Your task to perform on an android device: Go to CNN.com Image 0: 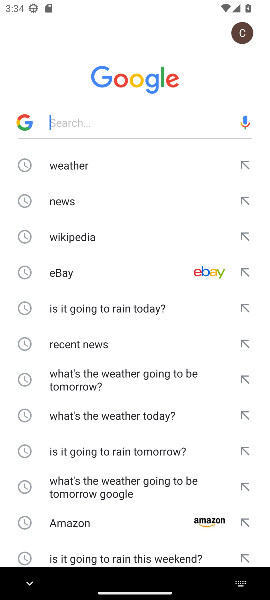
Step 0: press back button
Your task to perform on an android device: Go to CNN.com Image 1: 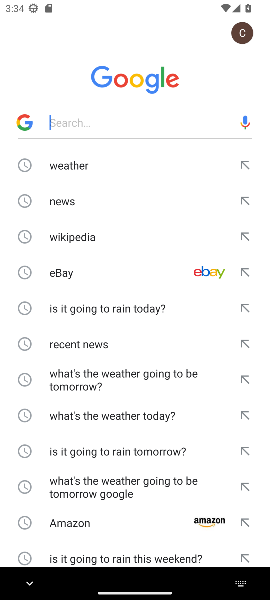
Step 1: press back button
Your task to perform on an android device: Go to CNN.com Image 2: 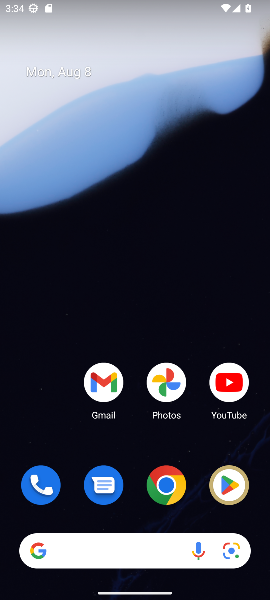
Step 2: press back button
Your task to perform on an android device: Go to CNN.com Image 3: 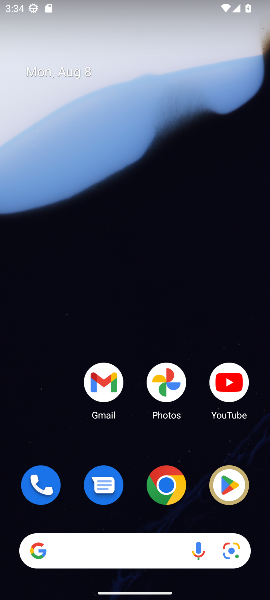
Step 3: press back button
Your task to perform on an android device: Go to CNN.com Image 4: 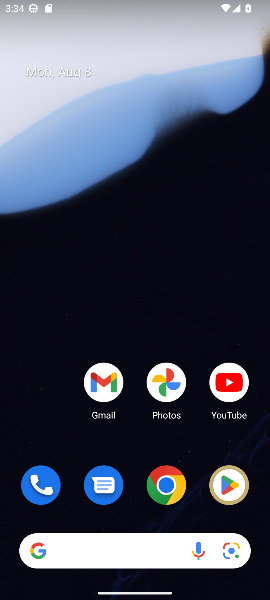
Step 4: drag from (150, 512) to (72, 91)
Your task to perform on an android device: Go to CNN.com Image 5: 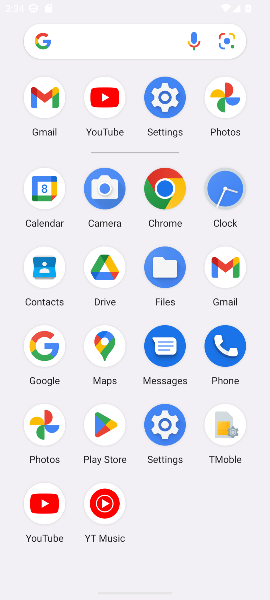
Step 5: drag from (144, 395) to (106, 130)
Your task to perform on an android device: Go to CNN.com Image 6: 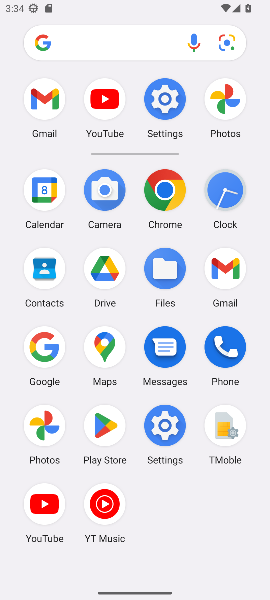
Step 6: click (158, 194)
Your task to perform on an android device: Go to CNN.com Image 7: 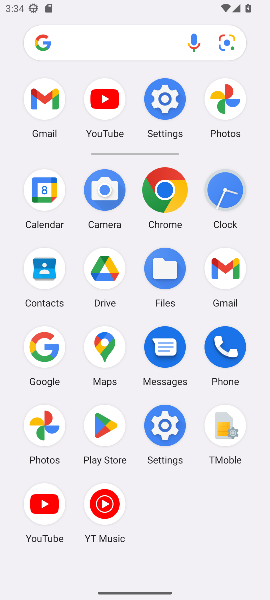
Step 7: click (157, 185)
Your task to perform on an android device: Go to CNN.com Image 8: 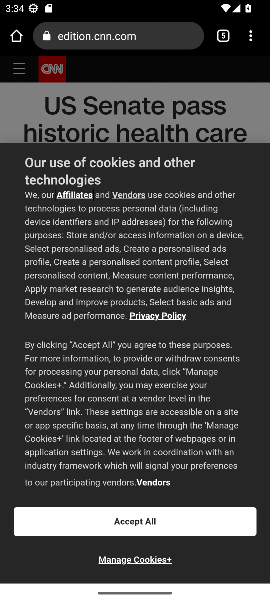
Step 8: click (250, 34)
Your task to perform on an android device: Go to CNN.com Image 9: 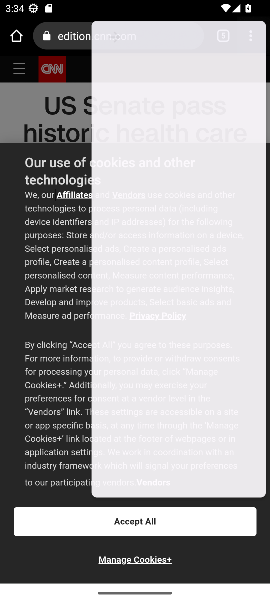
Step 9: click (250, 34)
Your task to perform on an android device: Go to CNN.com Image 10: 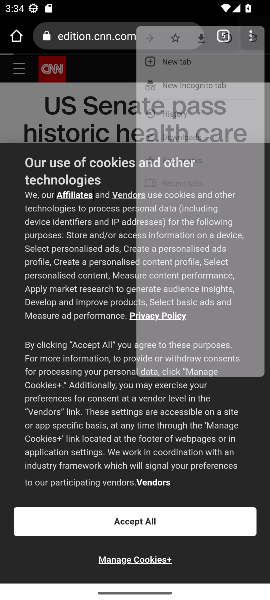
Step 10: click (250, 34)
Your task to perform on an android device: Go to CNN.com Image 11: 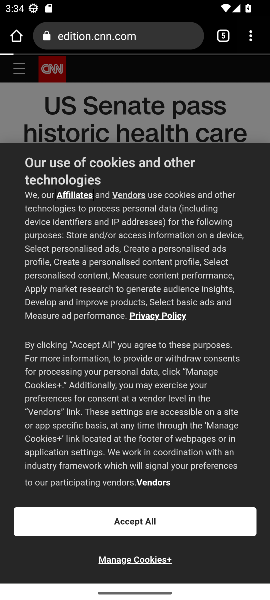
Step 11: click (250, 34)
Your task to perform on an android device: Go to CNN.com Image 12: 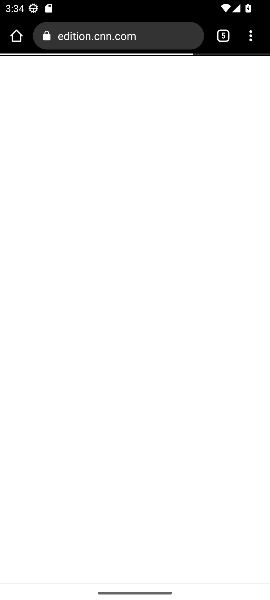
Step 12: click (250, 34)
Your task to perform on an android device: Go to CNN.com Image 13: 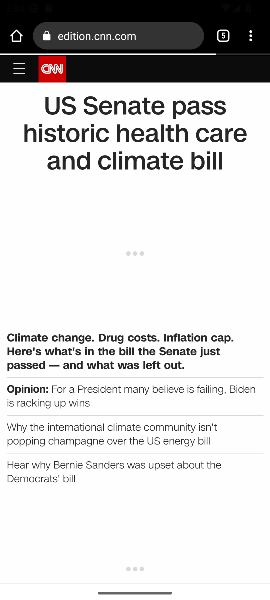
Step 13: click (250, 34)
Your task to perform on an android device: Go to CNN.com Image 14: 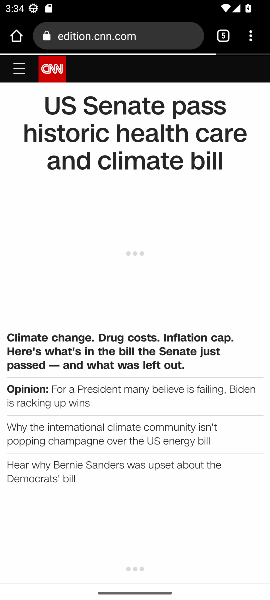
Step 14: drag from (250, 34) to (145, 67)
Your task to perform on an android device: Go to CNN.com Image 15: 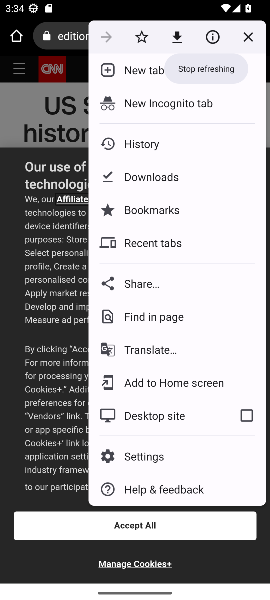
Step 15: click (144, 67)
Your task to perform on an android device: Go to CNN.com Image 16: 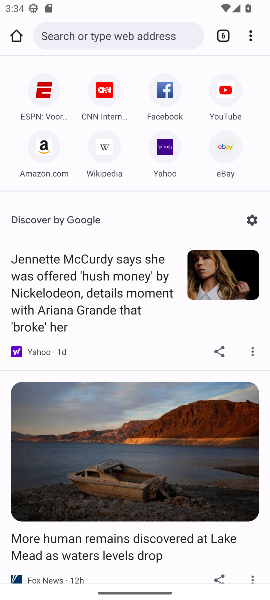
Step 16: click (55, 35)
Your task to perform on an android device: Go to CNN.com Image 17: 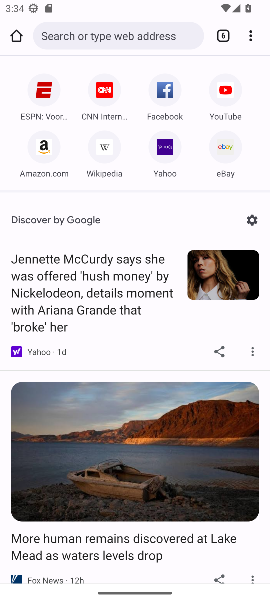
Step 17: click (58, 33)
Your task to perform on an android device: Go to CNN.com Image 18: 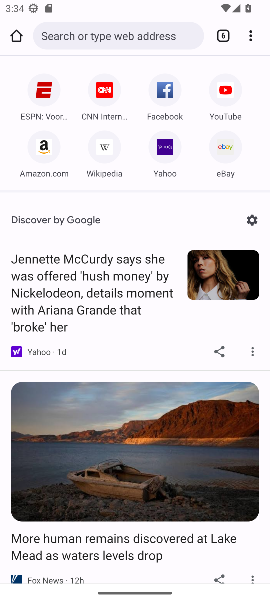
Step 18: click (58, 33)
Your task to perform on an android device: Go to CNN.com Image 19: 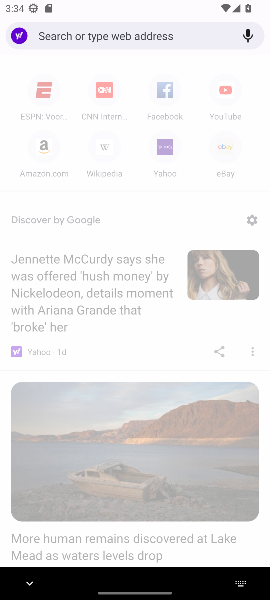
Step 19: click (58, 33)
Your task to perform on an android device: Go to CNN.com Image 20: 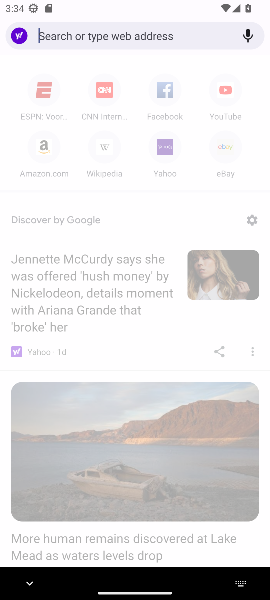
Step 20: type "CNN.com"
Your task to perform on an android device: Go to CNN.com Image 21: 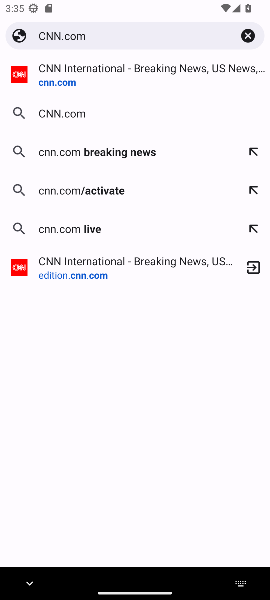
Step 21: click (50, 89)
Your task to perform on an android device: Go to CNN.com Image 22: 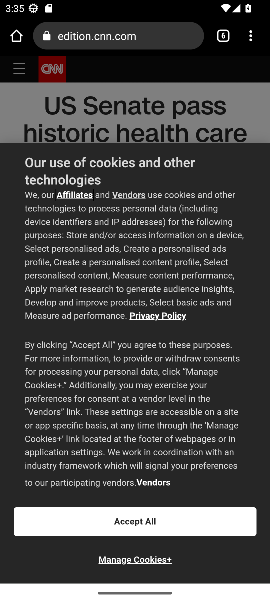
Step 22: task complete